Your task to perform on an android device: install app "Expedia: Hotels, Flights & Car" Image 0: 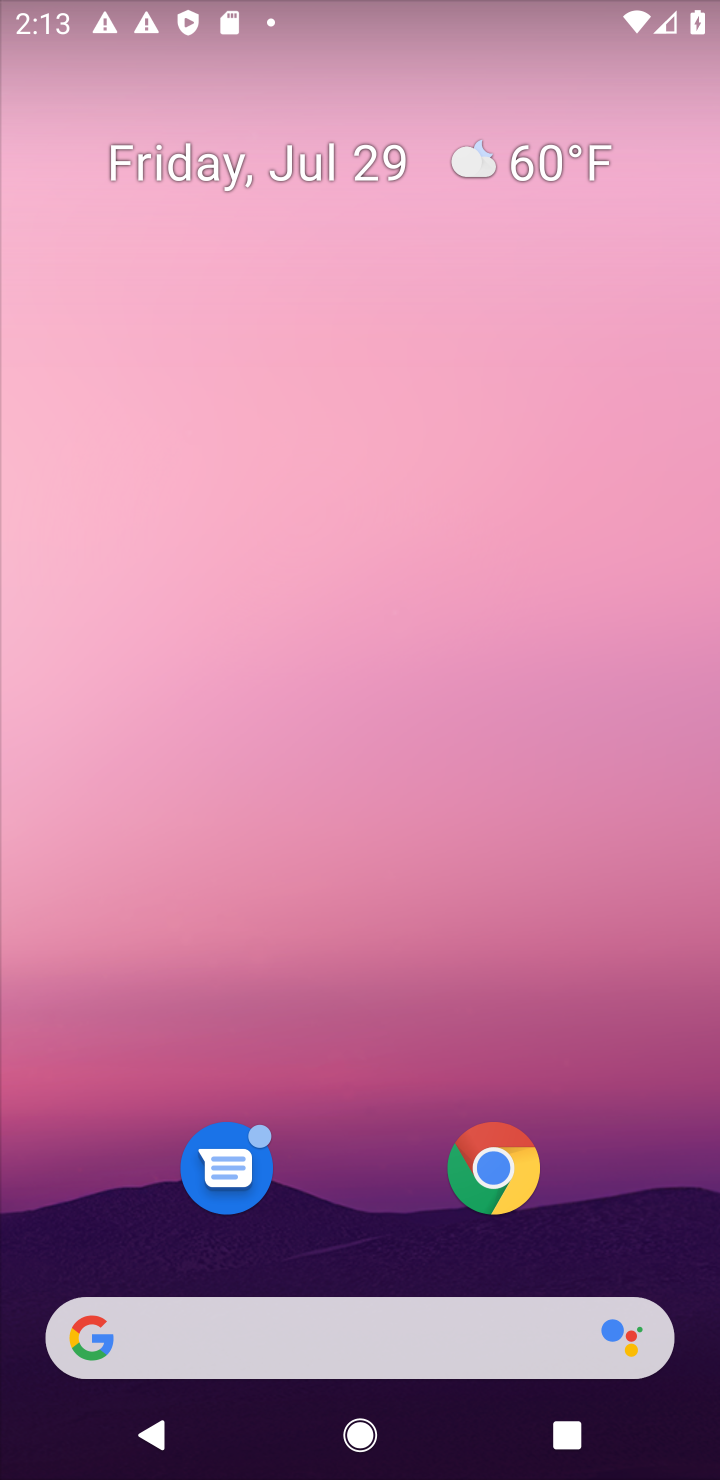
Step 0: drag from (375, 1331) to (433, 398)
Your task to perform on an android device: install app "Expedia: Hotels, Flights & Car" Image 1: 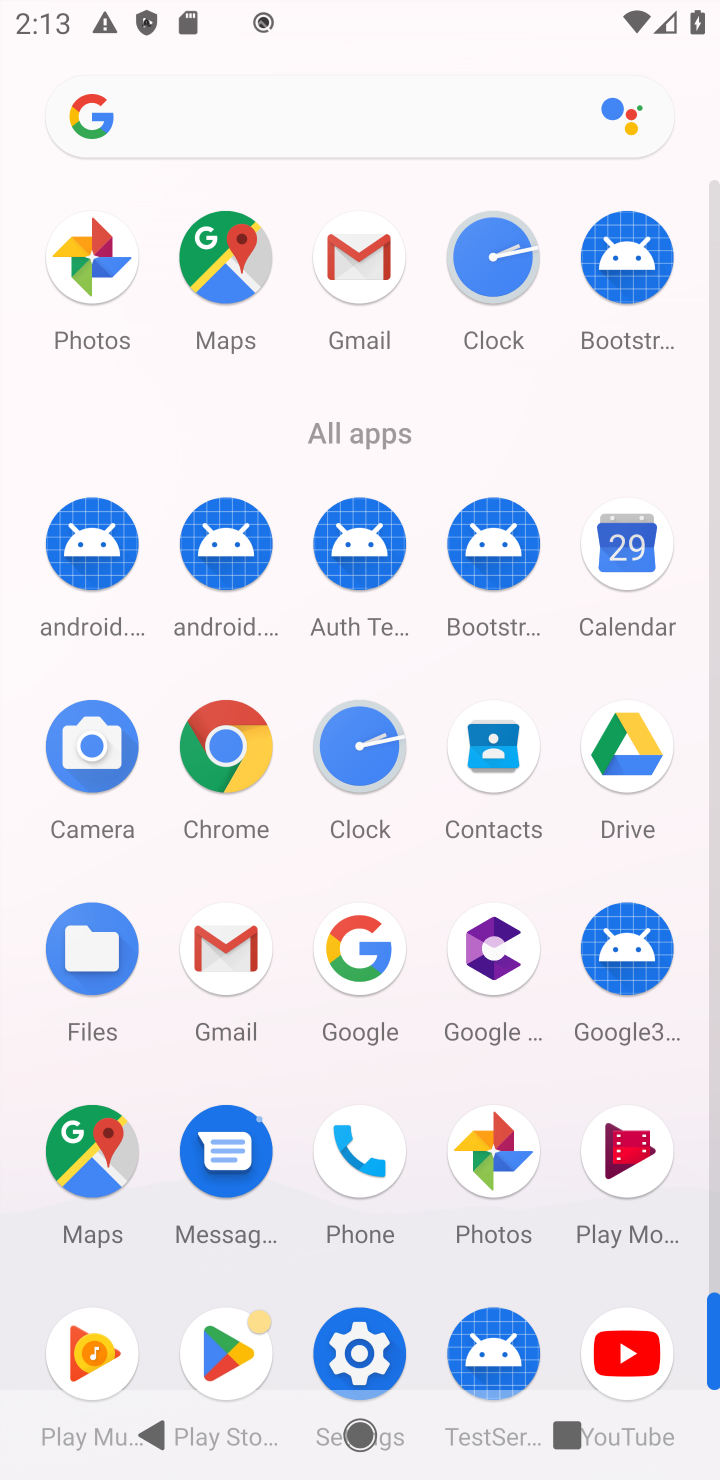
Step 1: click (235, 1367)
Your task to perform on an android device: install app "Expedia: Hotels, Flights & Car" Image 2: 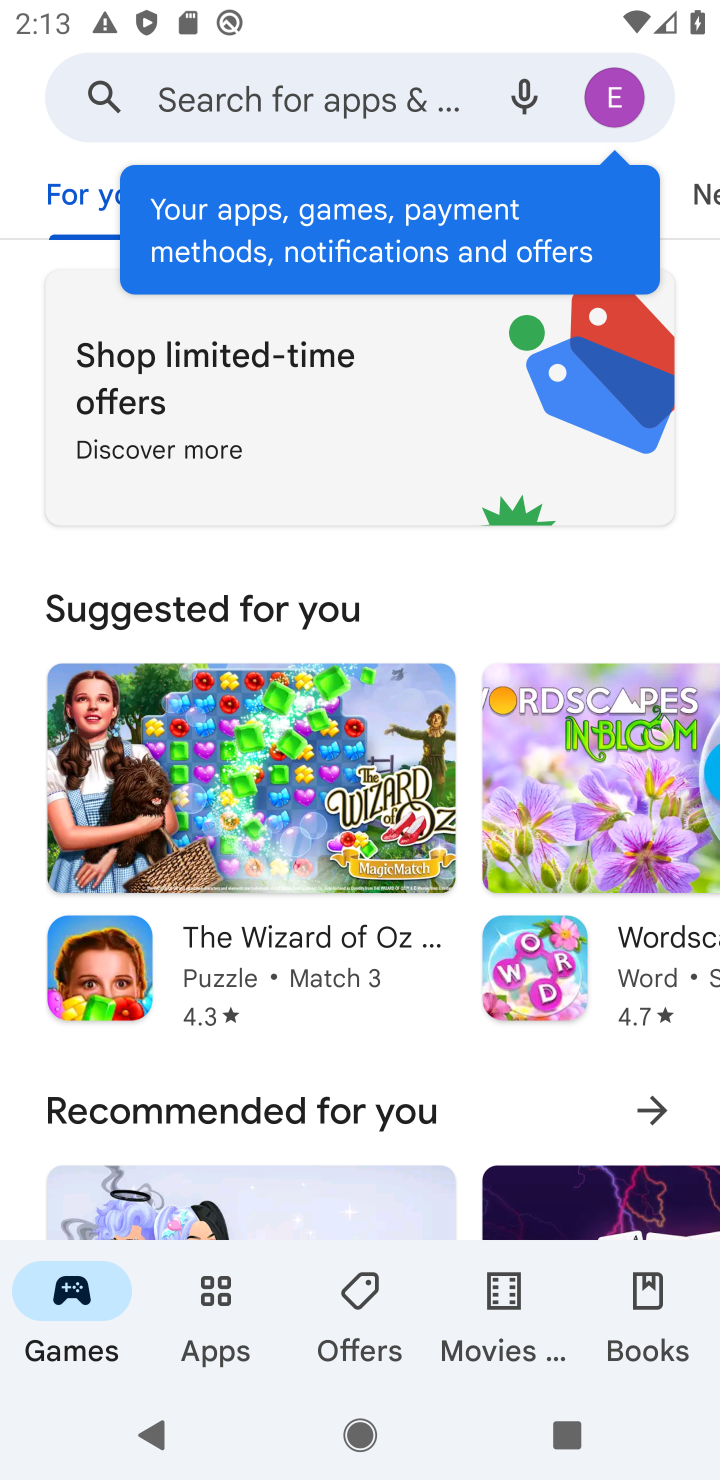
Step 2: click (208, 99)
Your task to perform on an android device: install app "Expedia: Hotels, Flights & Car" Image 3: 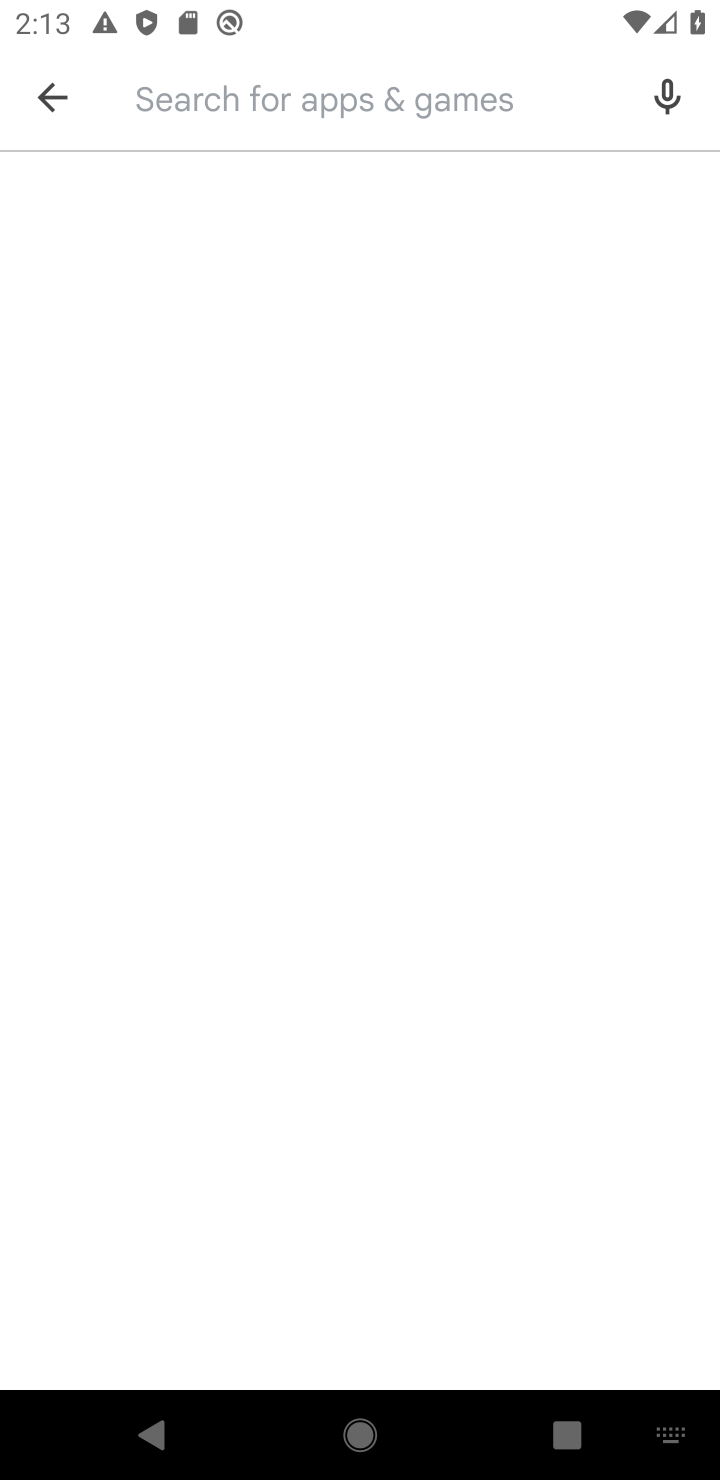
Step 3: task complete